Your task to perform on an android device: Open Google Chrome Image 0: 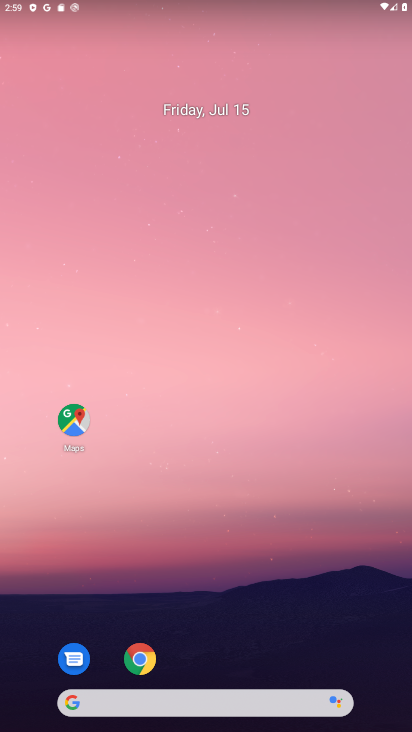
Step 0: click (136, 663)
Your task to perform on an android device: Open Google Chrome Image 1: 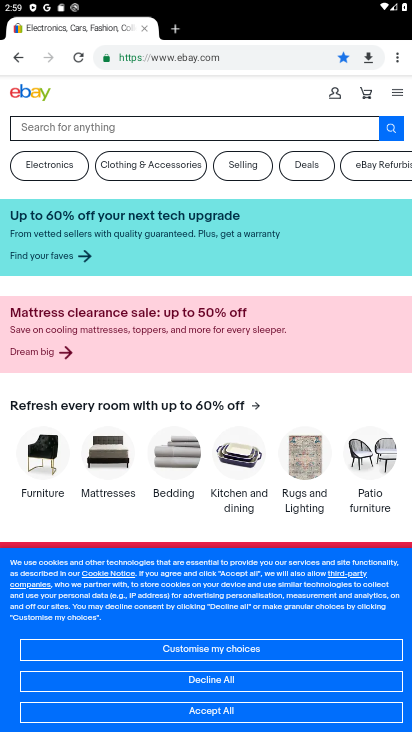
Step 1: task complete